Your task to perform on an android device: turn off airplane mode Image 0: 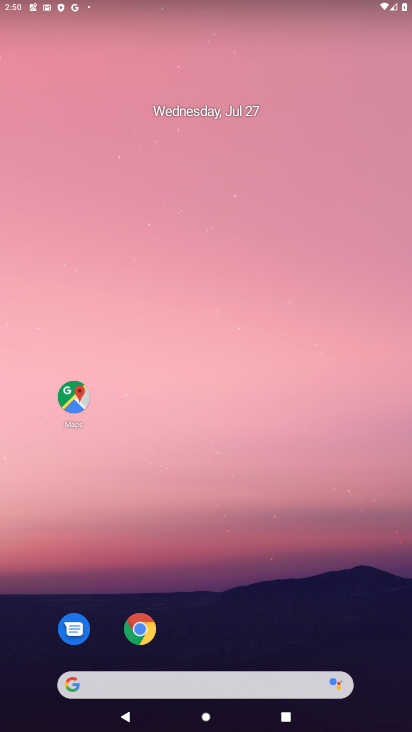
Step 0: task complete